Your task to perform on an android device: Open sound settings Image 0: 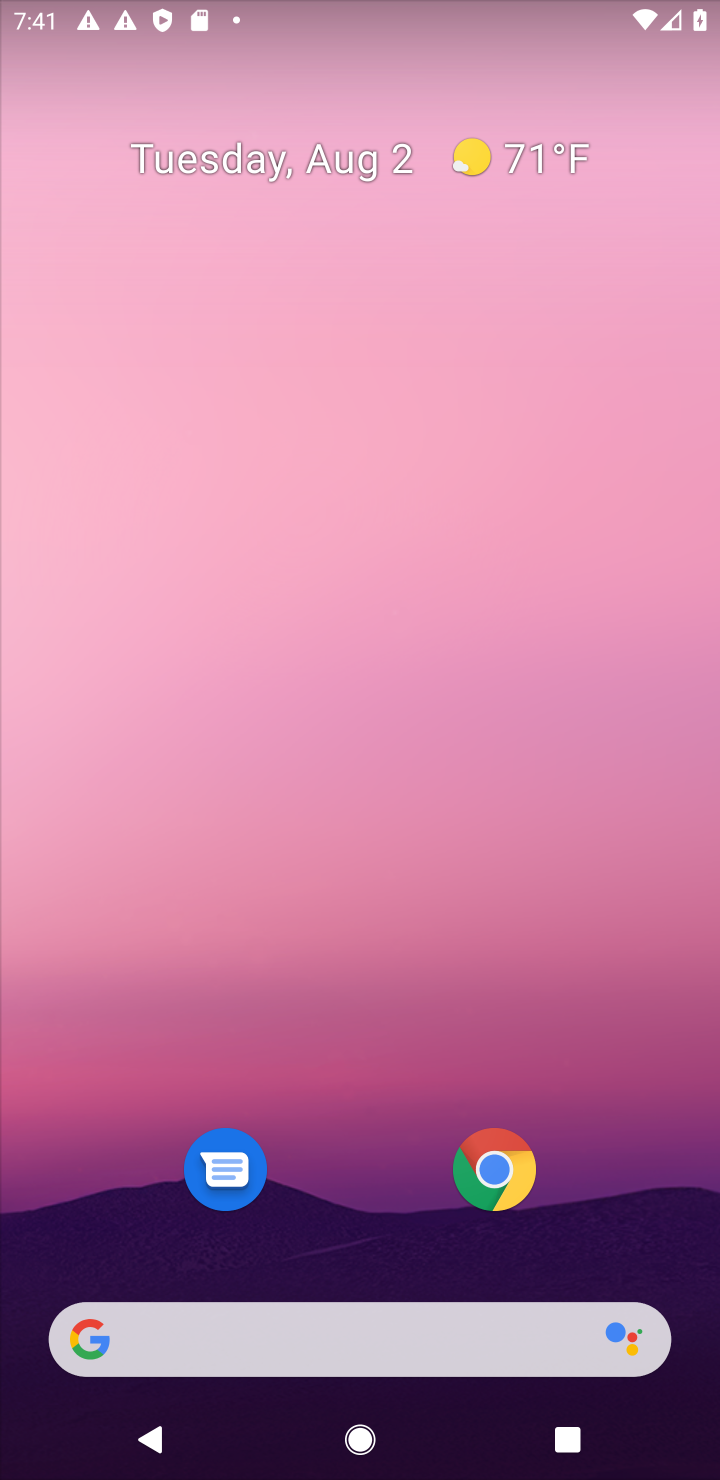
Step 0: drag from (418, 780) to (466, 88)
Your task to perform on an android device: Open sound settings Image 1: 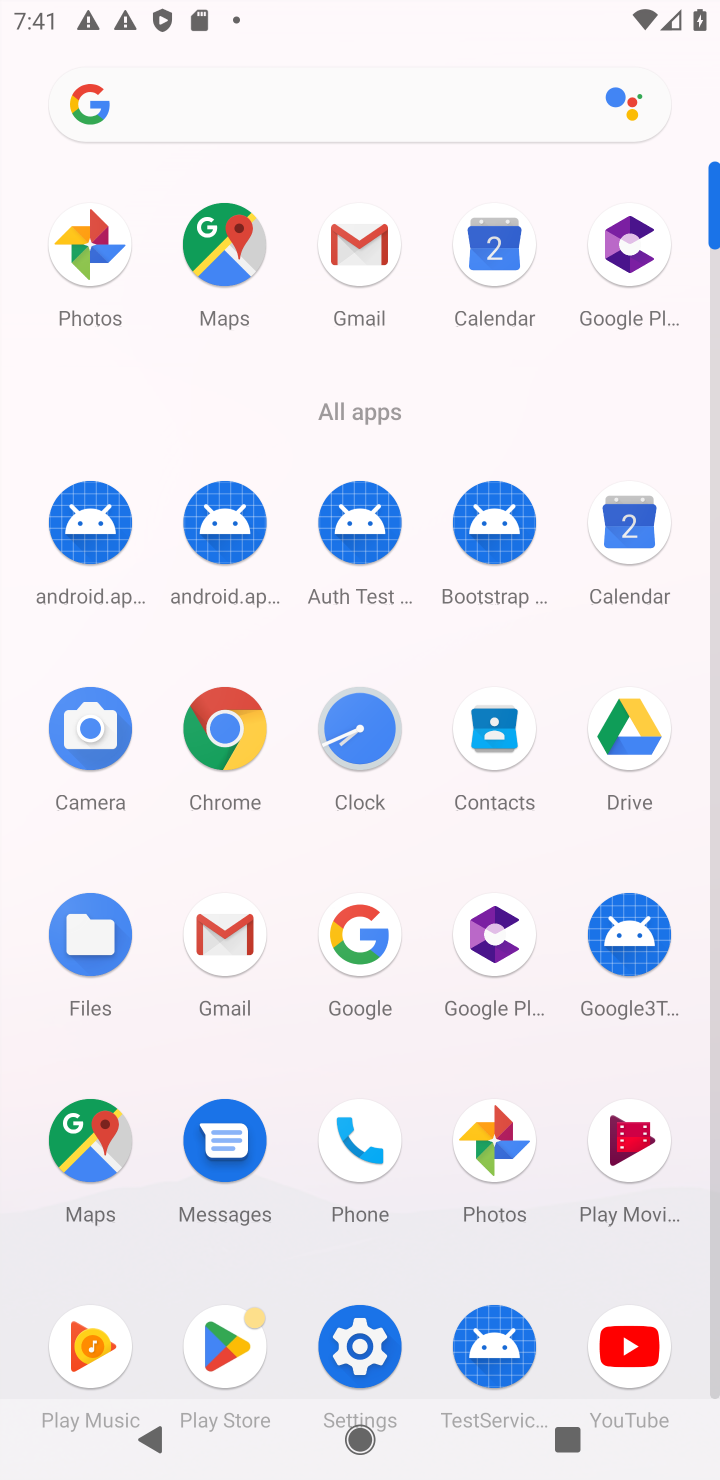
Step 1: click (361, 1349)
Your task to perform on an android device: Open sound settings Image 2: 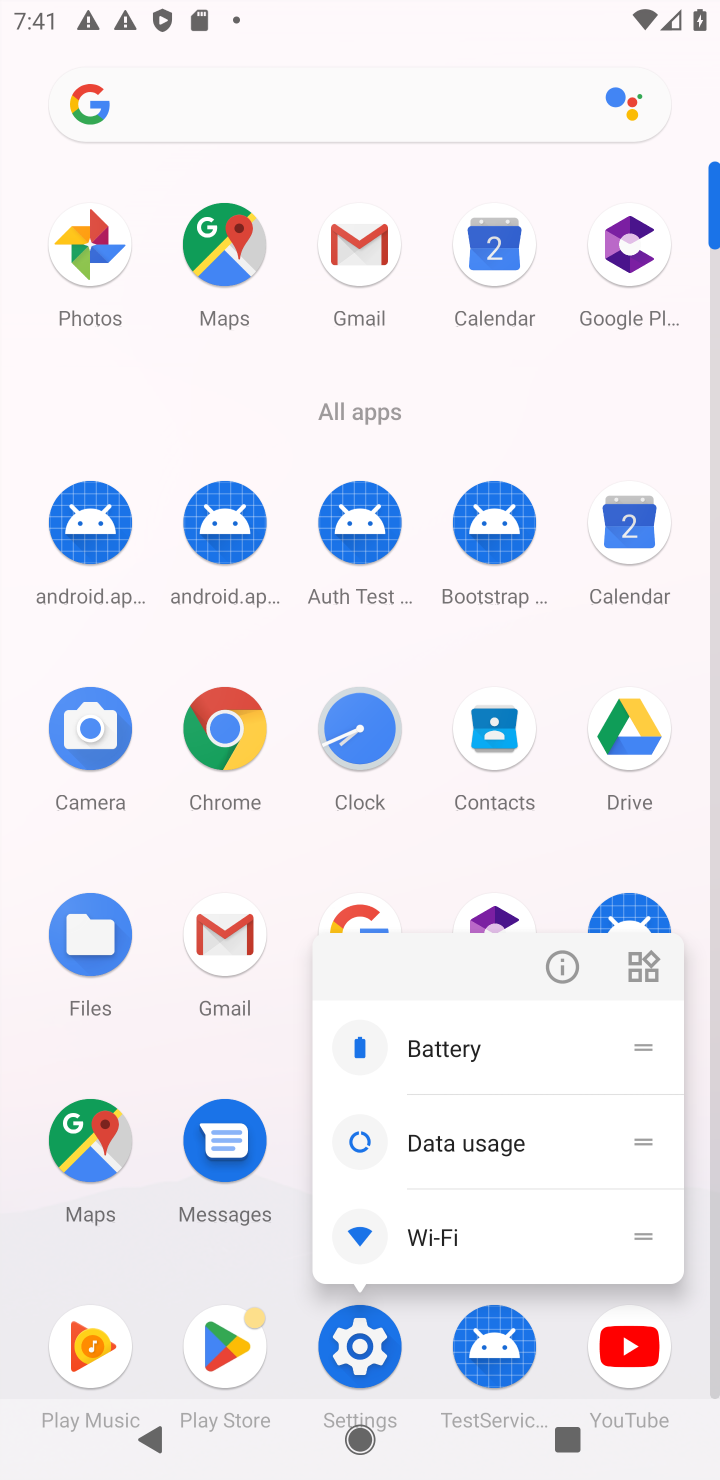
Step 2: click (361, 1346)
Your task to perform on an android device: Open sound settings Image 3: 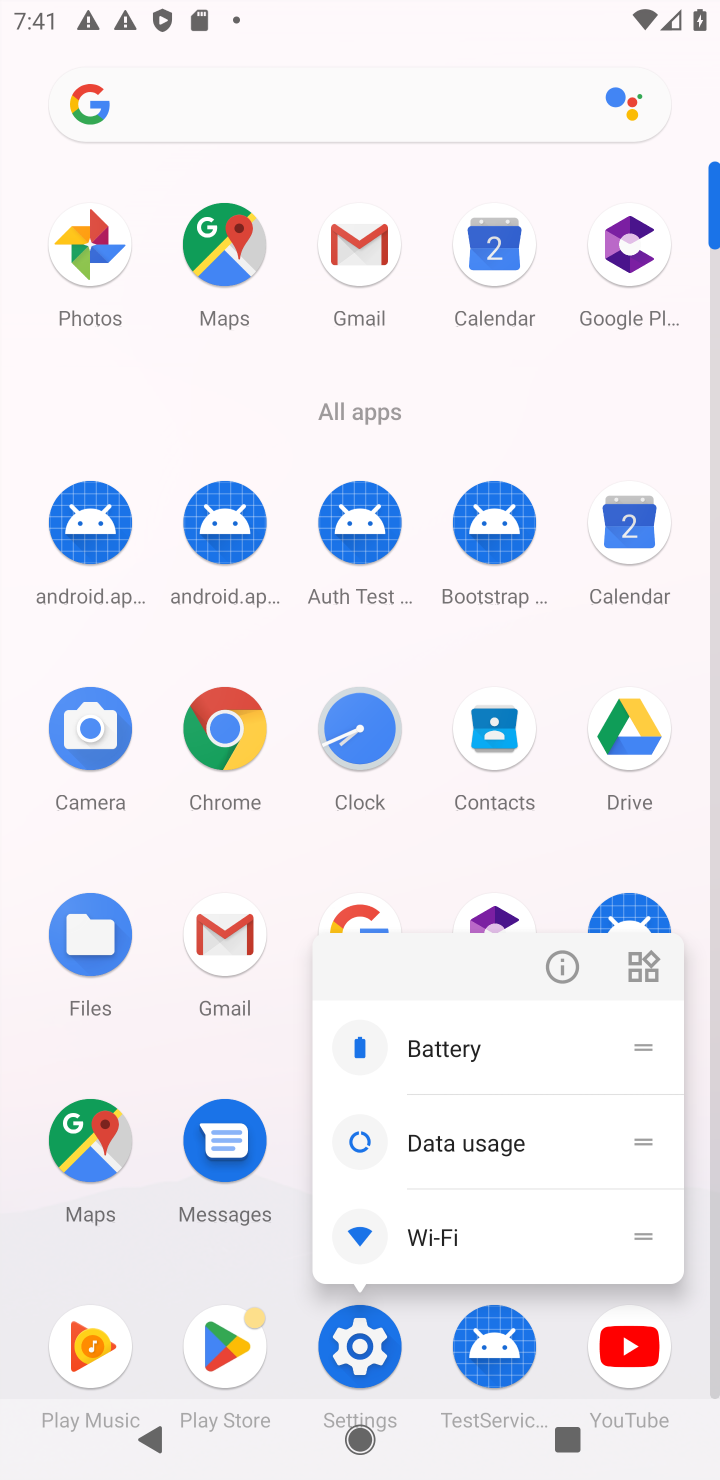
Step 3: click (361, 1346)
Your task to perform on an android device: Open sound settings Image 4: 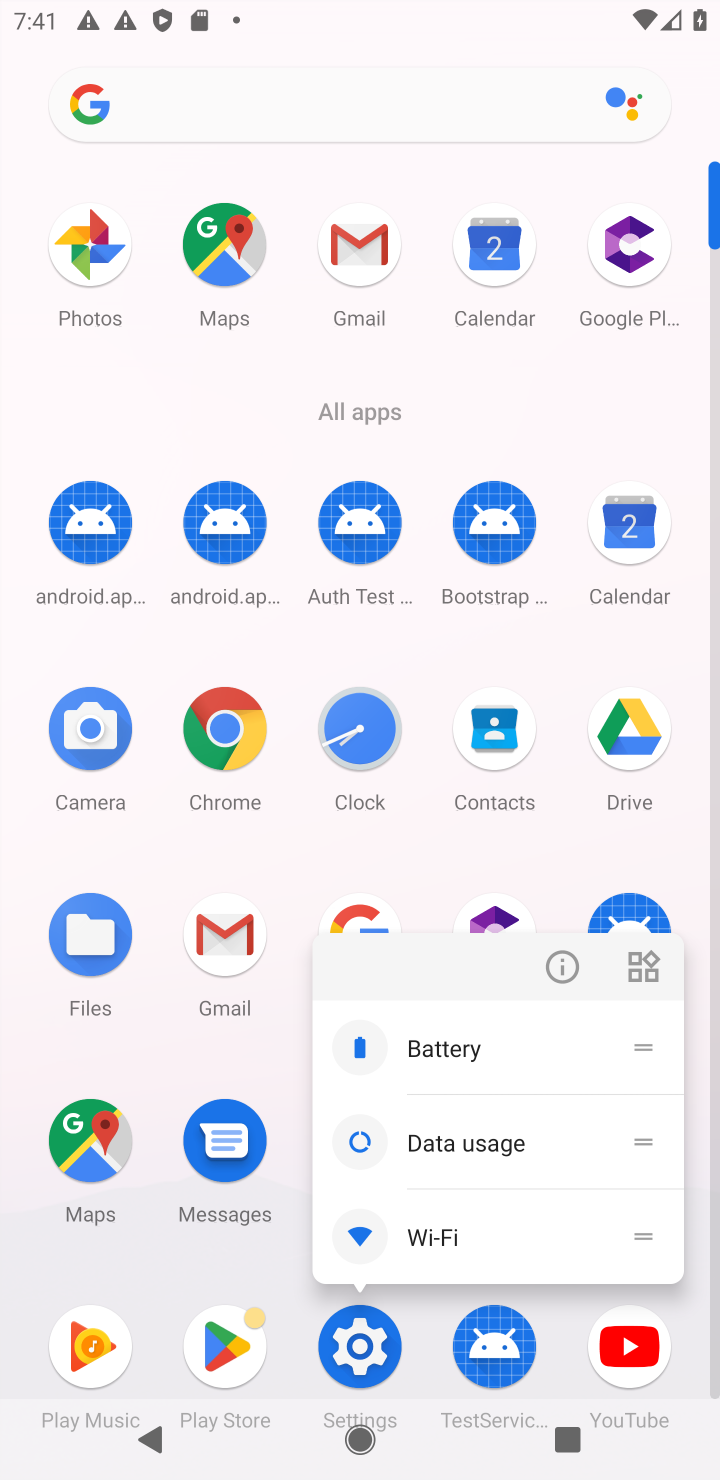
Step 4: click (361, 1346)
Your task to perform on an android device: Open sound settings Image 5: 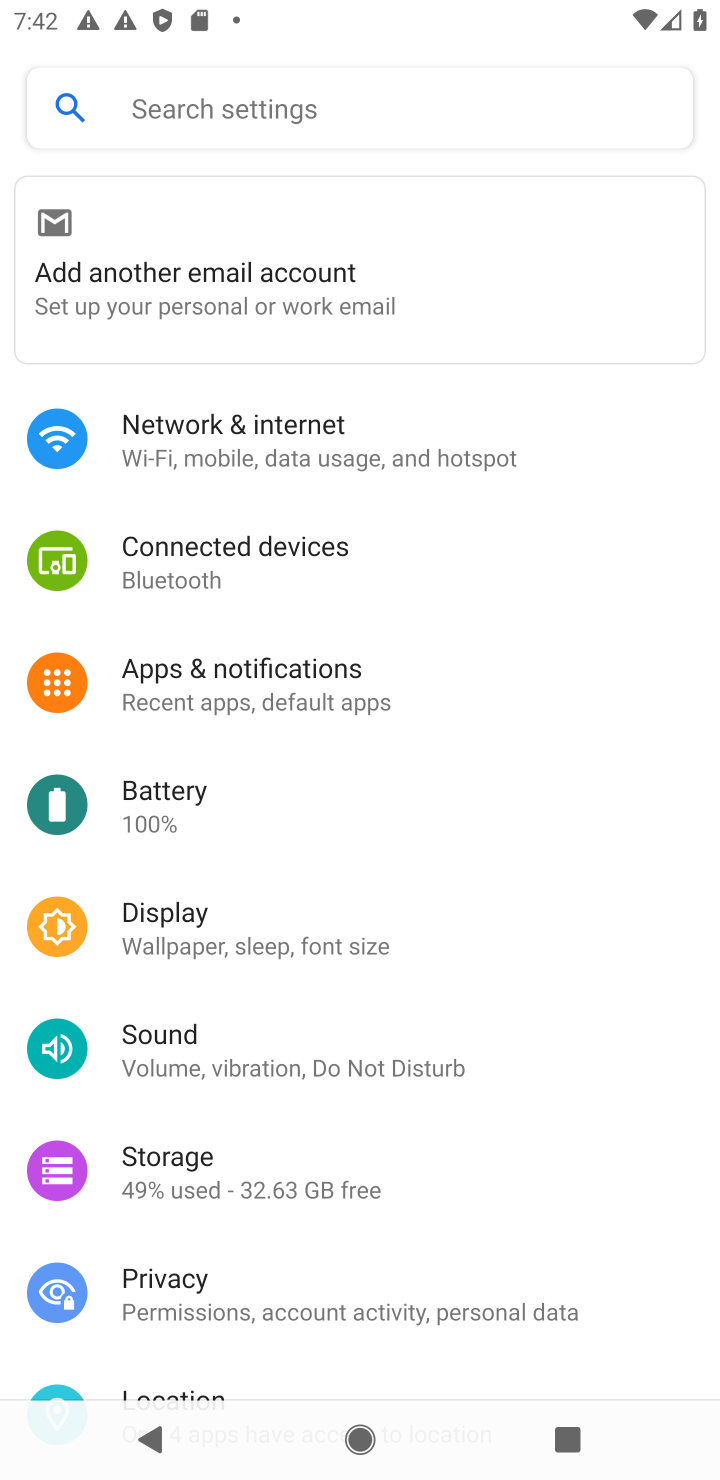
Step 5: click (304, 1065)
Your task to perform on an android device: Open sound settings Image 6: 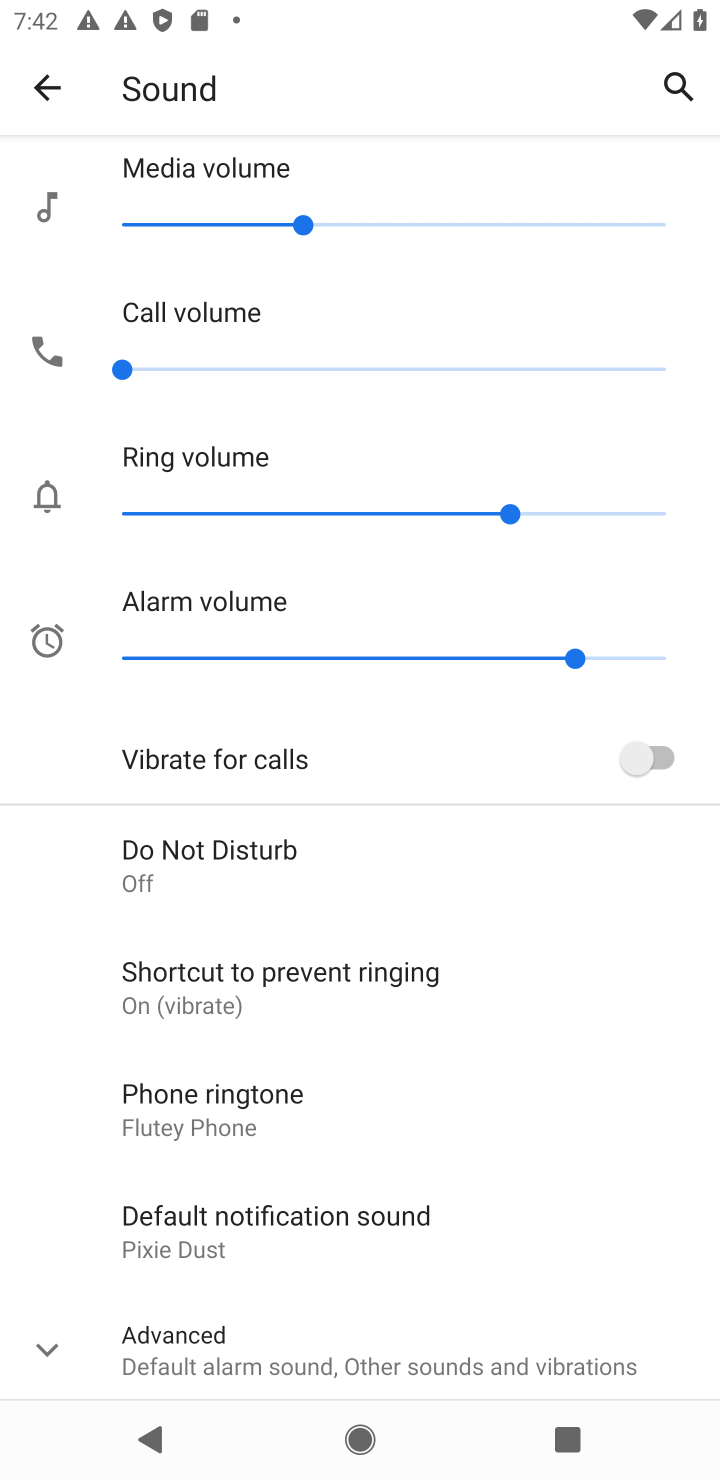
Step 6: task complete